Your task to perform on an android device: change alarm snooze length Image 0: 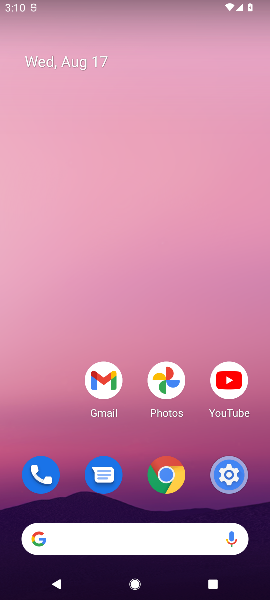
Step 0: drag from (127, 510) to (60, 34)
Your task to perform on an android device: change alarm snooze length Image 1: 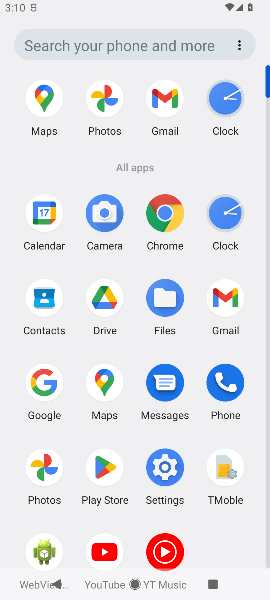
Step 1: click (215, 216)
Your task to perform on an android device: change alarm snooze length Image 2: 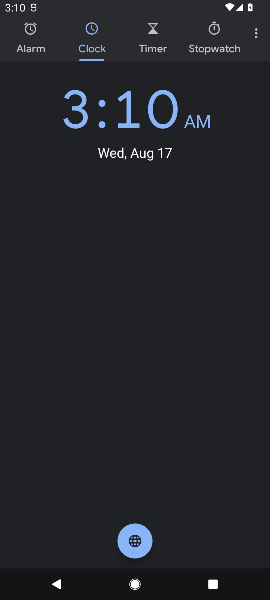
Step 2: click (251, 43)
Your task to perform on an android device: change alarm snooze length Image 3: 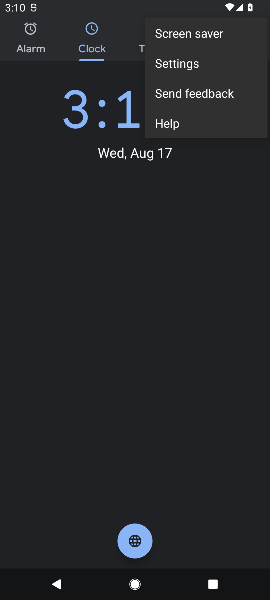
Step 3: click (184, 64)
Your task to perform on an android device: change alarm snooze length Image 4: 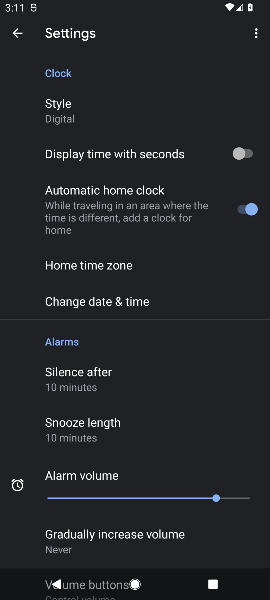
Step 4: drag from (136, 326) to (88, 10)
Your task to perform on an android device: change alarm snooze length Image 5: 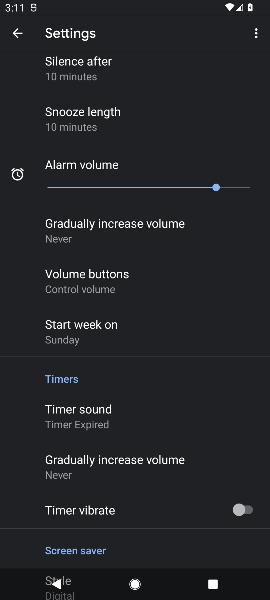
Step 5: click (96, 105)
Your task to perform on an android device: change alarm snooze length Image 6: 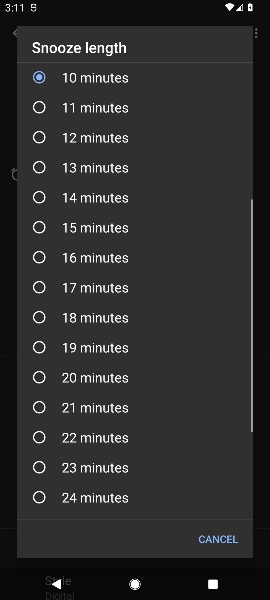
Step 6: click (96, 105)
Your task to perform on an android device: change alarm snooze length Image 7: 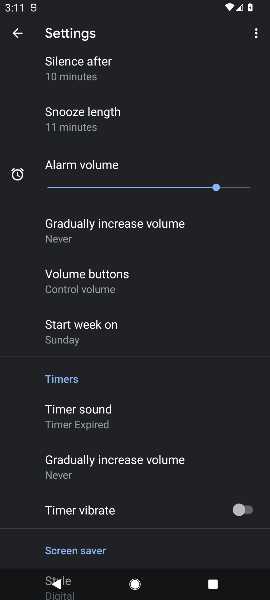
Step 7: task complete